Your task to perform on an android device: Empty the shopping cart on costco.com. Add razer huntsman to the cart on costco.com, then select checkout. Image 0: 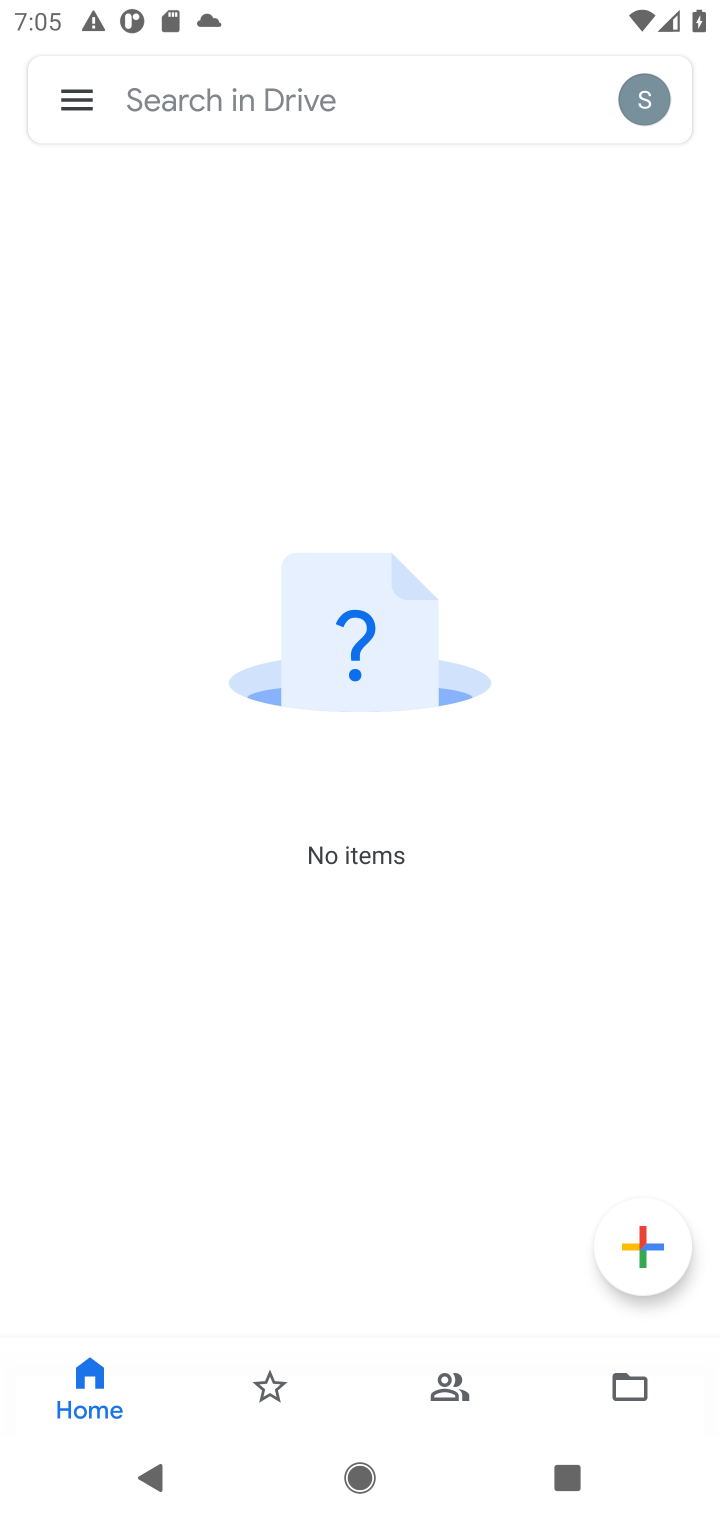
Step 0: press home button
Your task to perform on an android device: Empty the shopping cart on costco.com. Add razer huntsman to the cart on costco.com, then select checkout. Image 1: 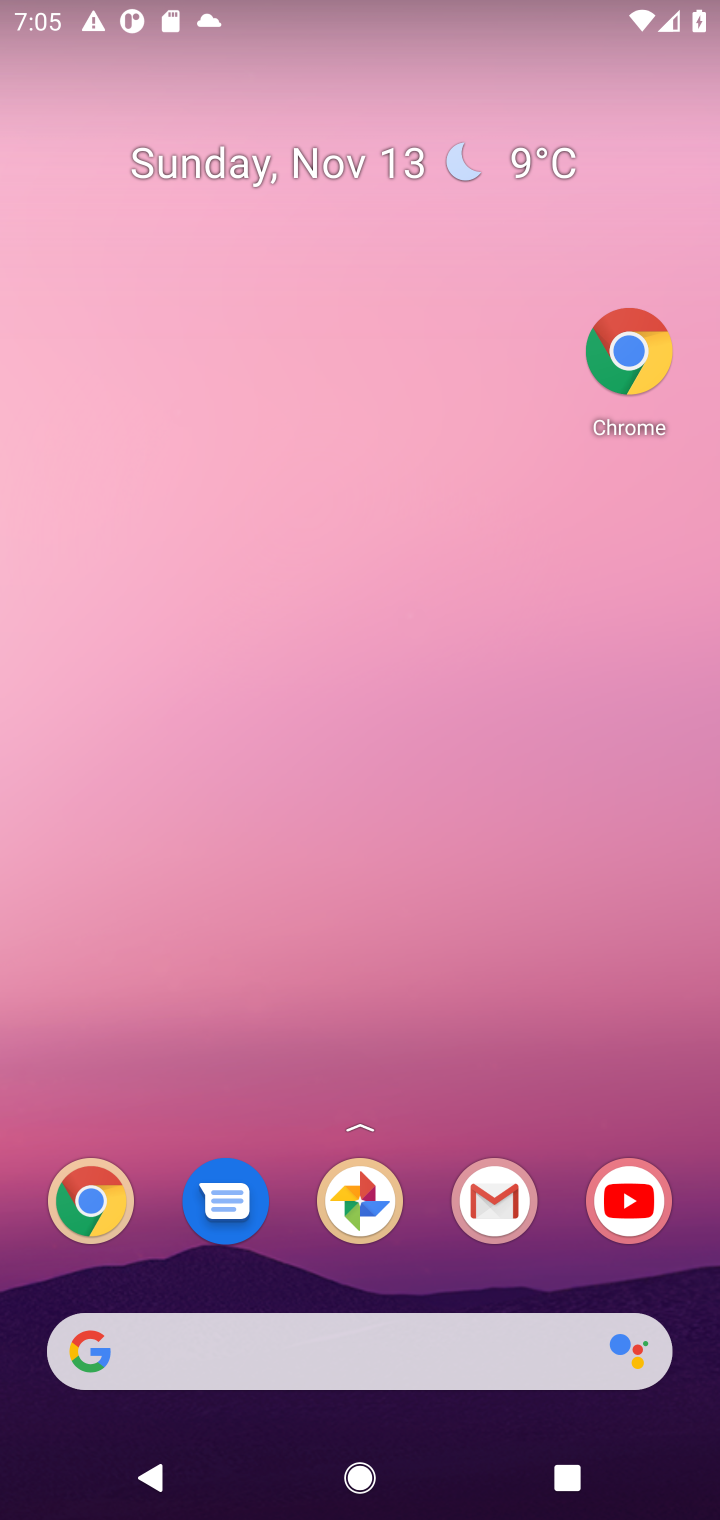
Step 1: drag from (425, 1276) to (351, 72)
Your task to perform on an android device: Empty the shopping cart on costco.com. Add razer huntsman to the cart on costco.com, then select checkout. Image 2: 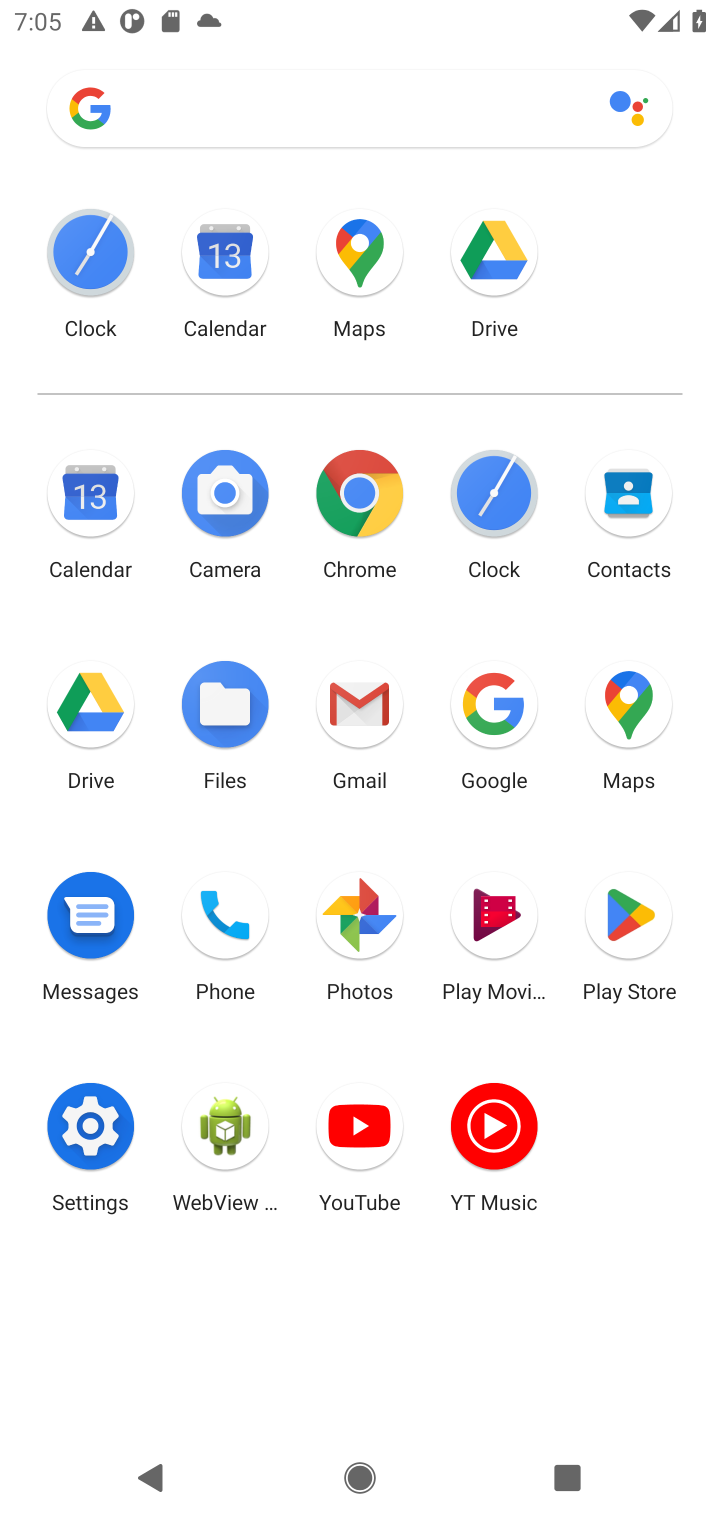
Step 2: click (372, 493)
Your task to perform on an android device: Empty the shopping cart on costco.com. Add razer huntsman to the cart on costco.com, then select checkout. Image 3: 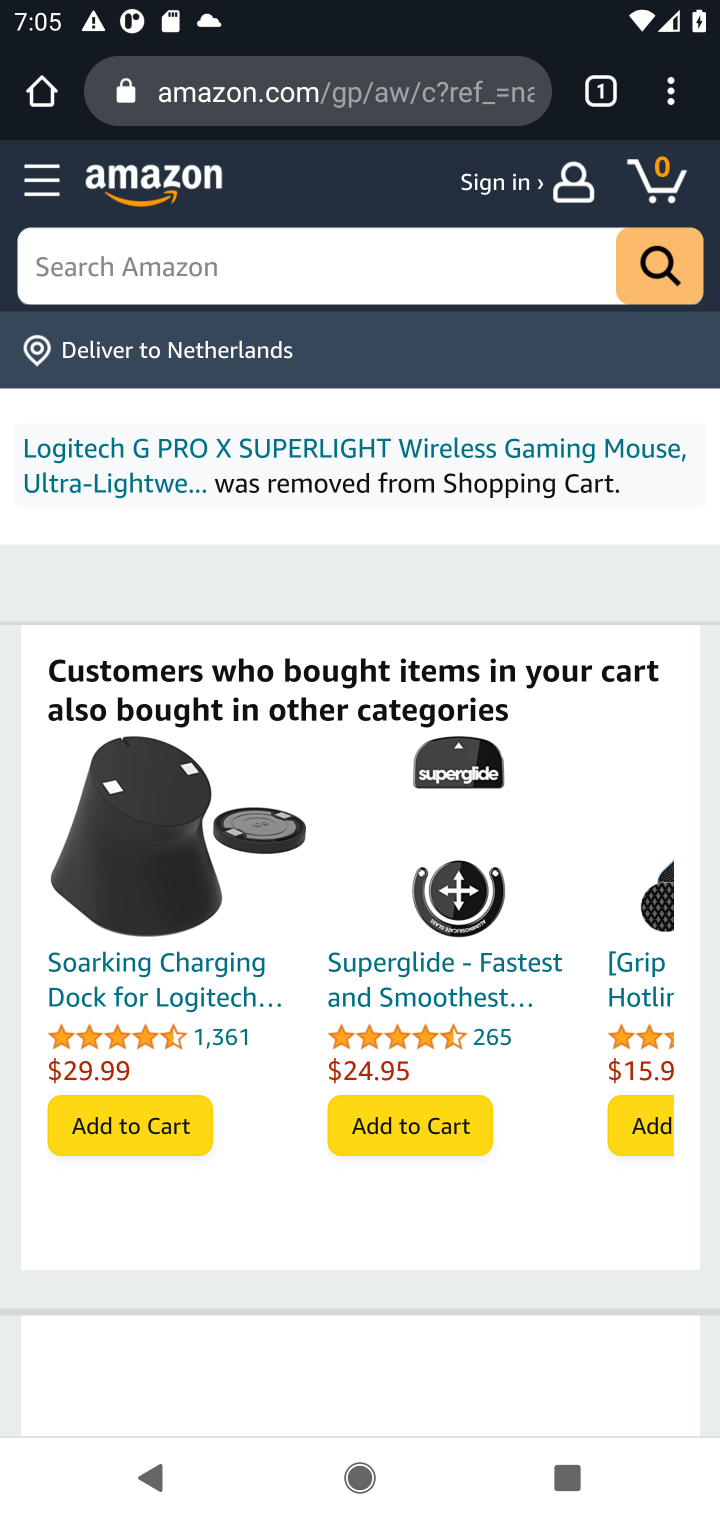
Step 3: click (270, 89)
Your task to perform on an android device: Empty the shopping cart on costco.com. Add razer huntsman to the cart on costco.com, then select checkout. Image 4: 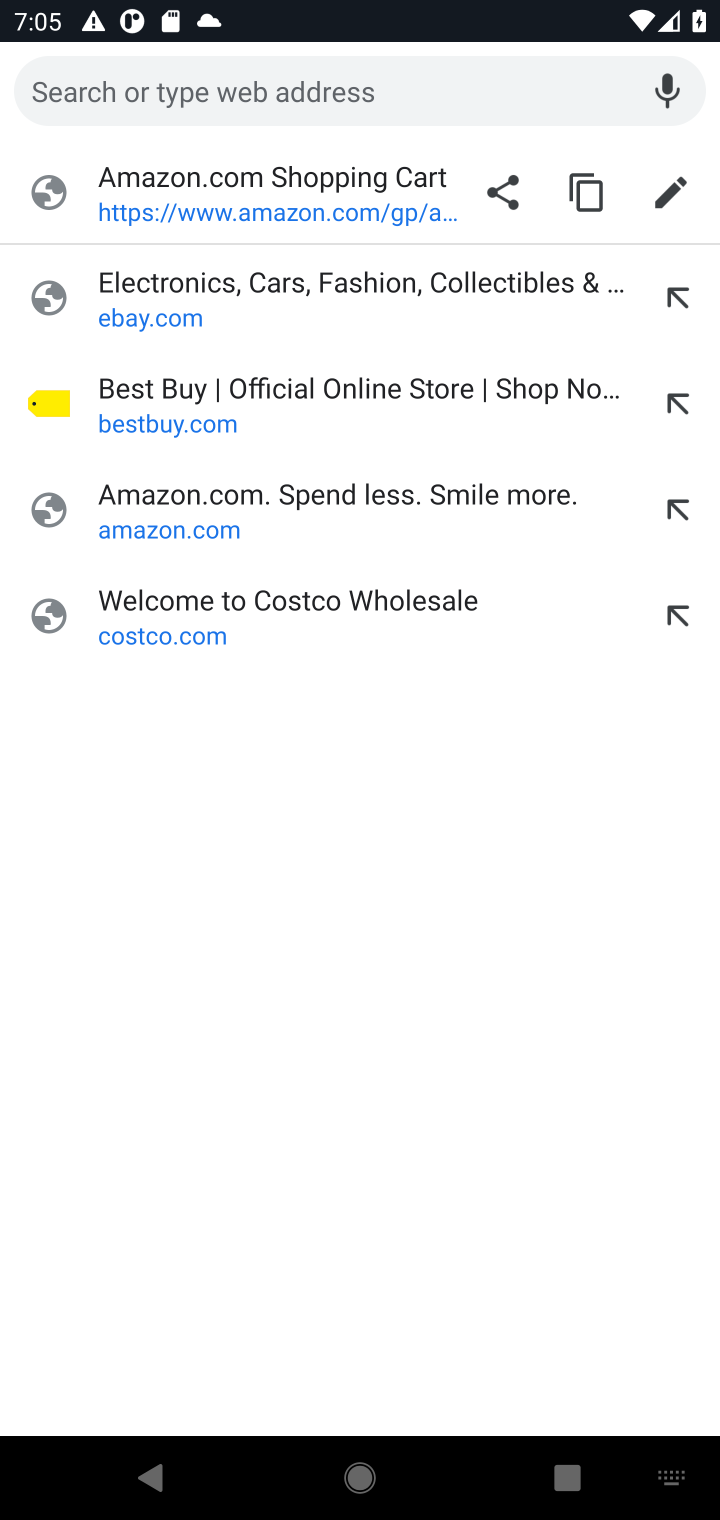
Step 4: type "costco.com"
Your task to perform on an android device: Empty the shopping cart on costco.com. Add razer huntsman to the cart on costco.com, then select checkout. Image 5: 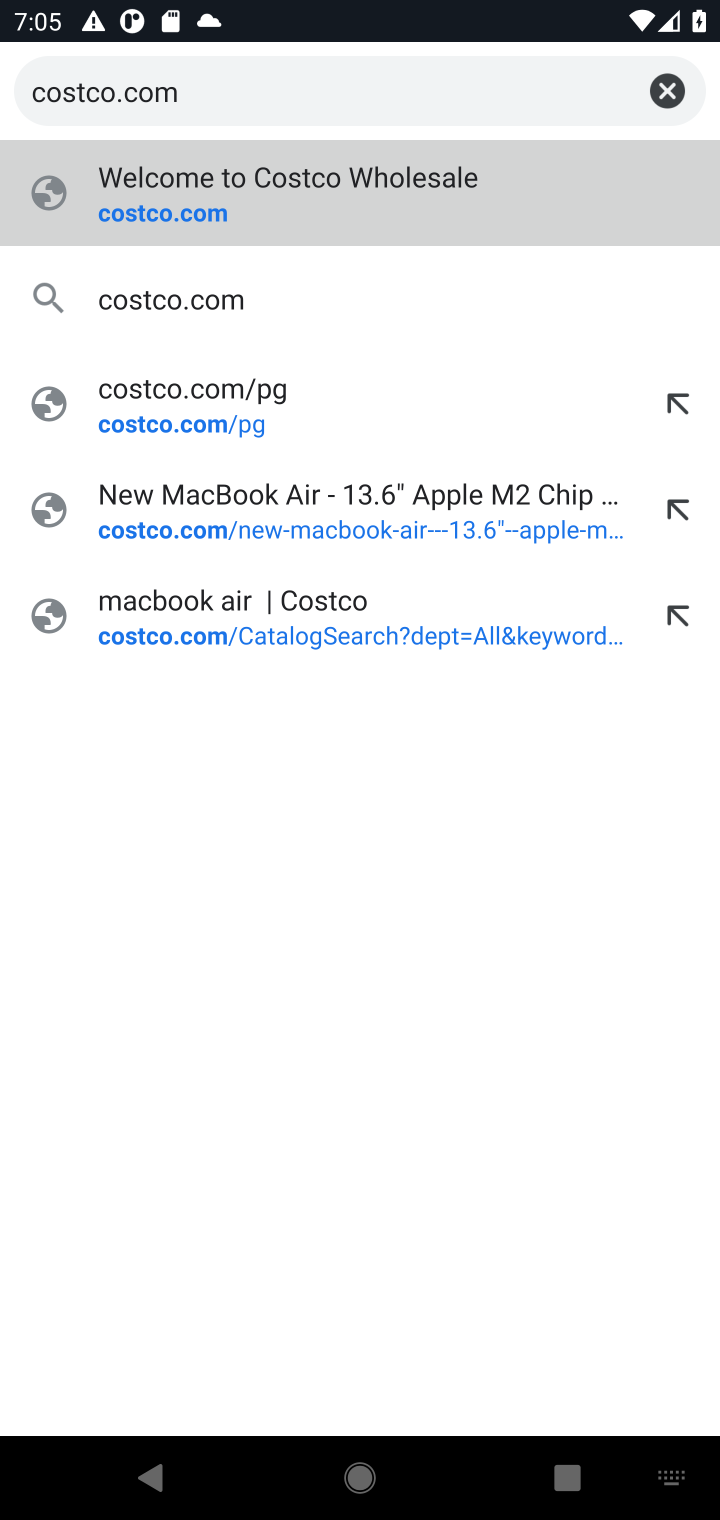
Step 5: press enter
Your task to perform on an android device: Empty the shopping cart on costco.com. Add razer huntsman to the cart on costco.com, then select checkout. Image 6: 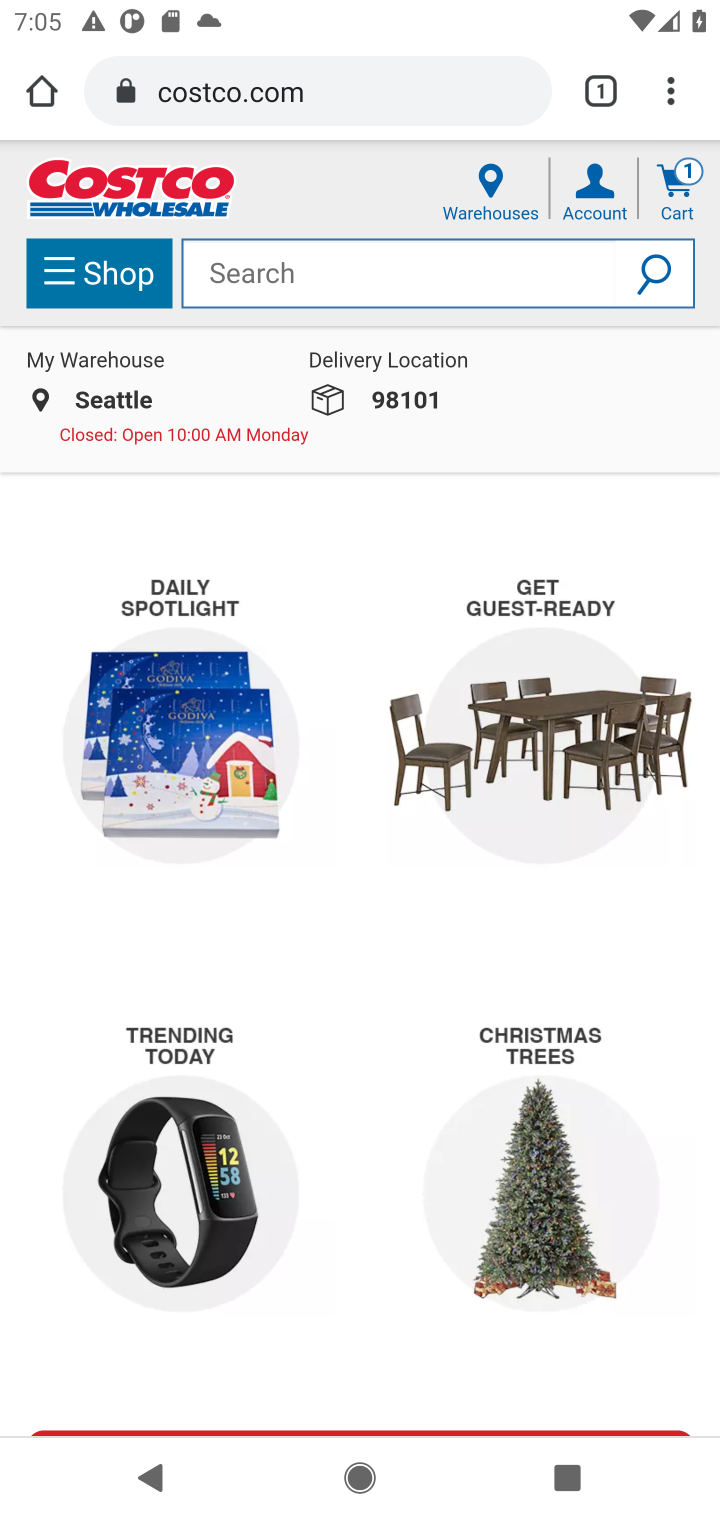
Step 6: click (684, 181)
Your task to perform on an android device: Empty the shopping cart on costco.com. Add razer huntsman to the cart on costco.com, then select checkout. Image 7: 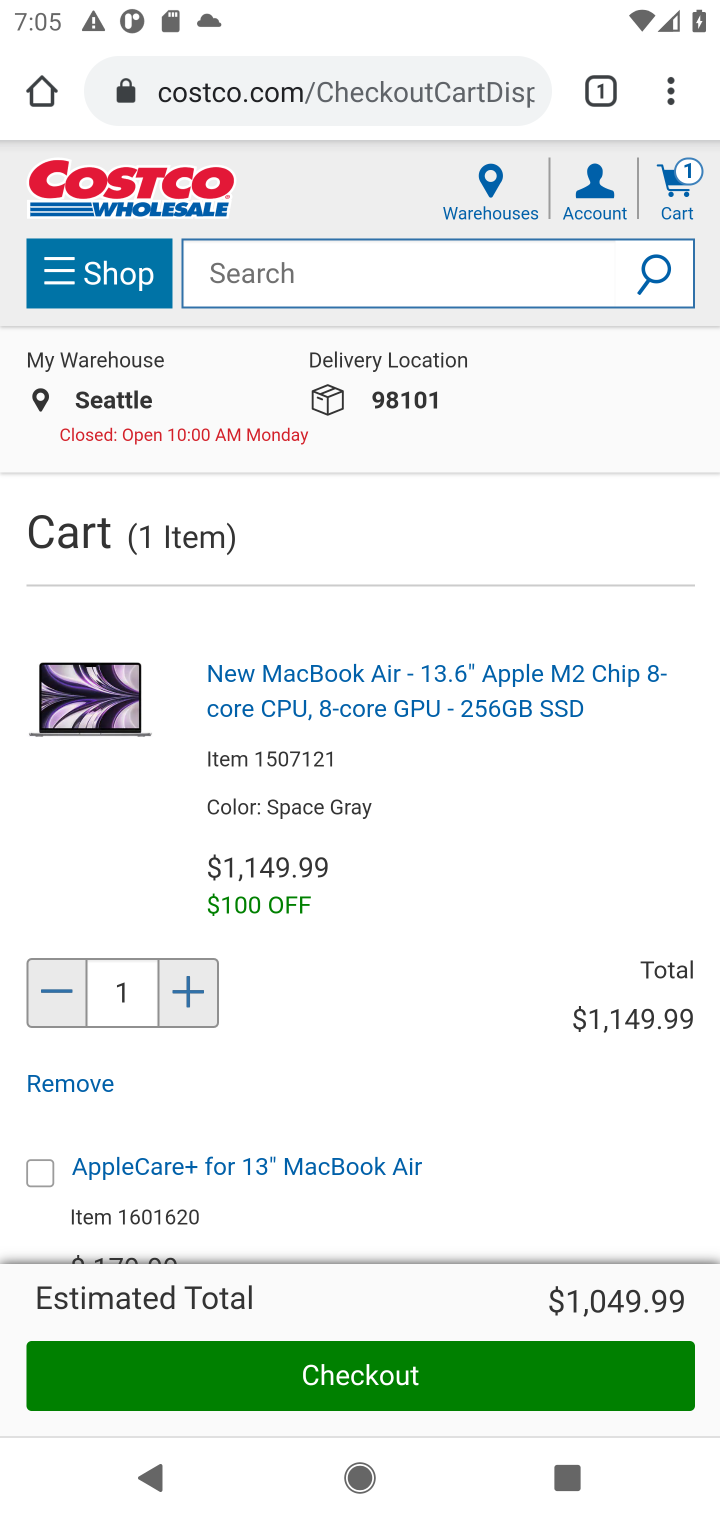
Step 7: drag from (365, 1120) to (399, 758)
Your task to perform on an android device: Empty the shopping cart on costco.com. Add razer huntsman to the cart on costco.com, then select checkout. Image 8: 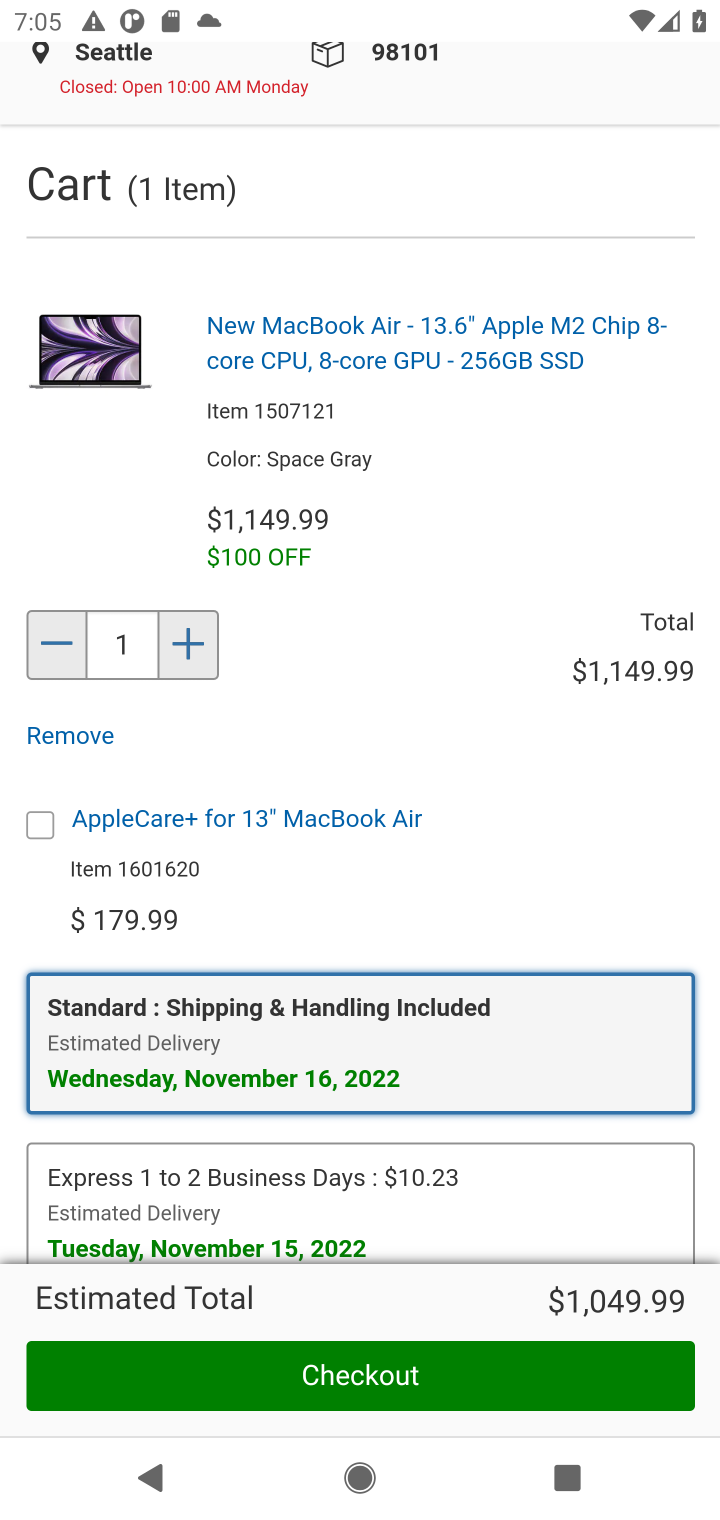
Step 8: click (50, 630)
Your task to perform on an android device: Empty the shopping cart on costco.com. Add razer huntsman to the cart on costco.com, then select checkout. Image 9: 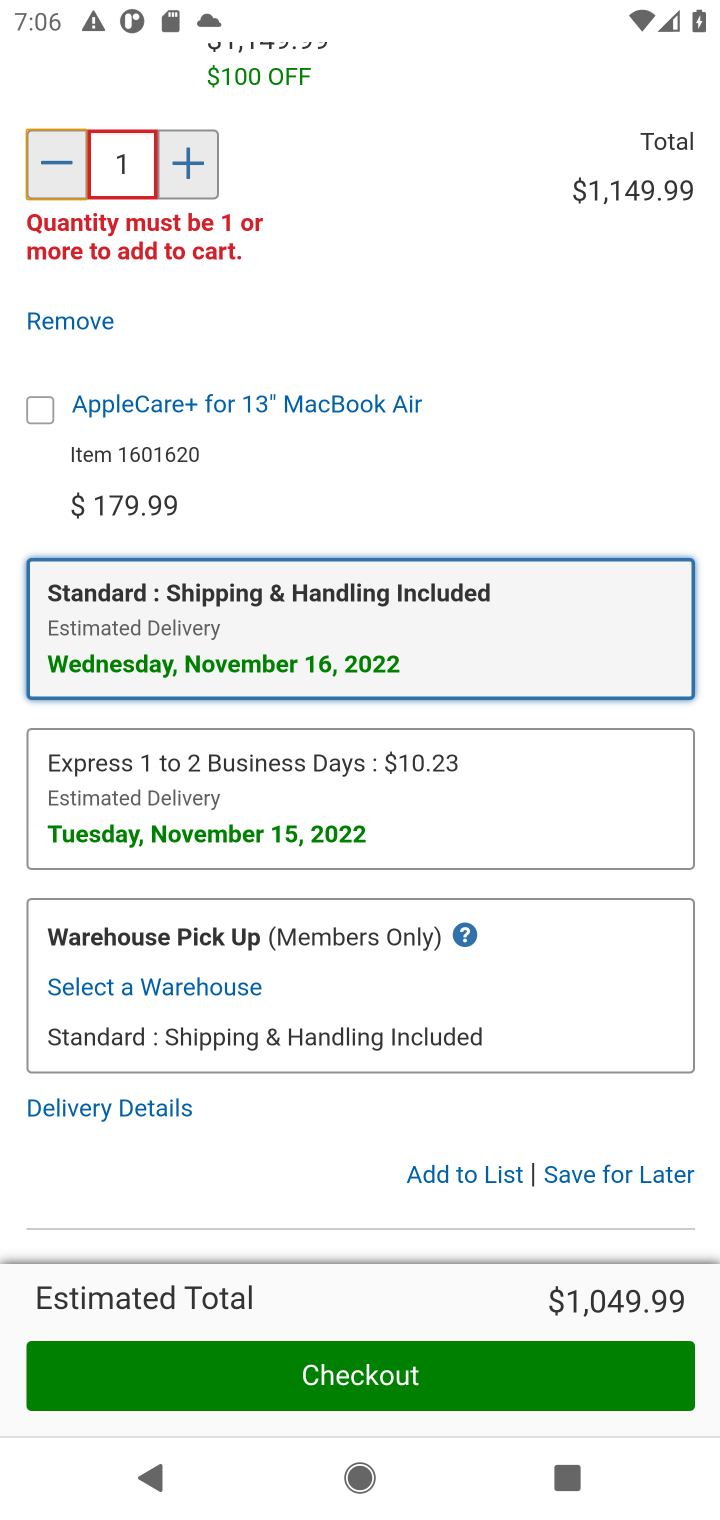
Step 9: click (91, 324)
Your task to perform on an android device: Empty the shopping cart on costco.com. Add razer huntsman to the cart on costco.com, then select checkout. Image 10: 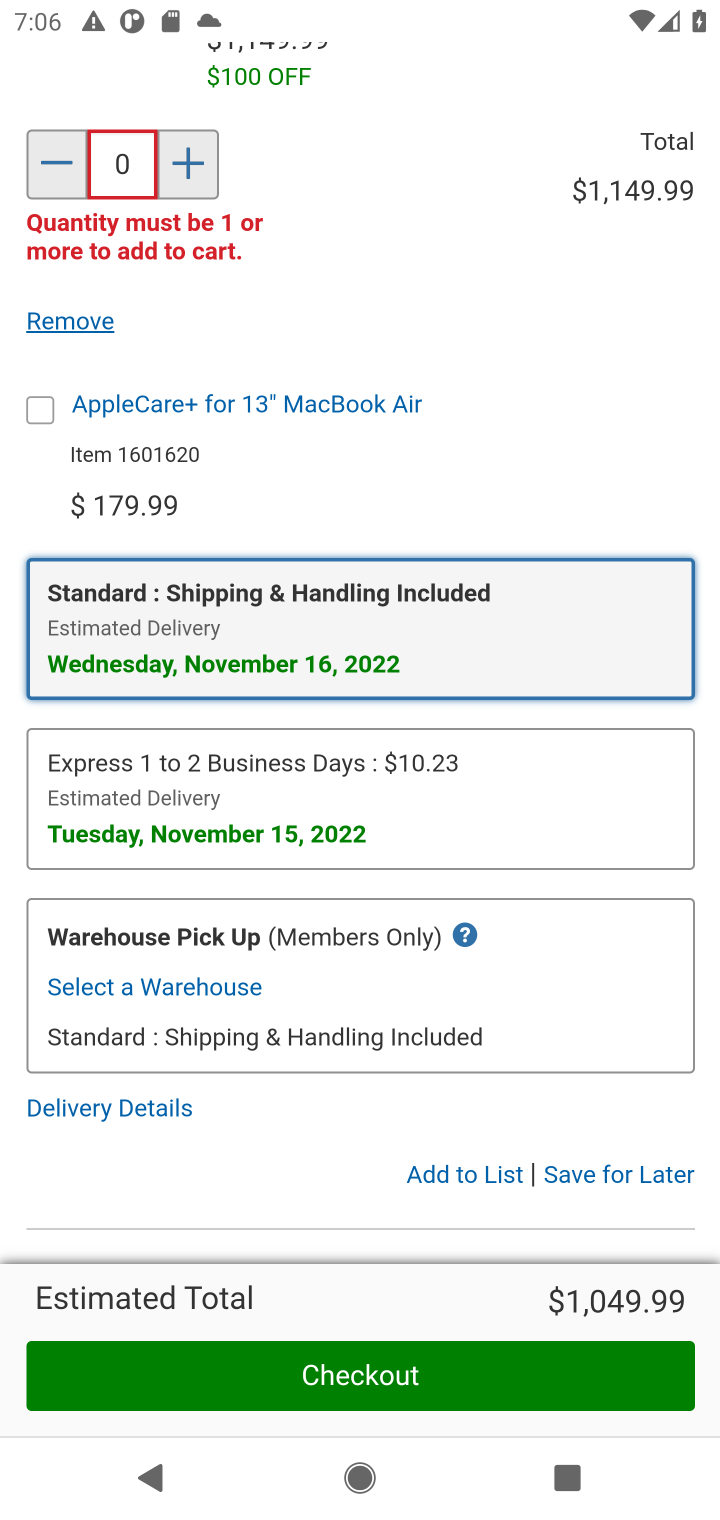
Step 10: drag from (437, 359) to (450, 1097)
Your task to perform on an android device: Empty the shopping cart on costco.com. Add razer huntsman to the cart on costco.com, then select checkout. Image 11: 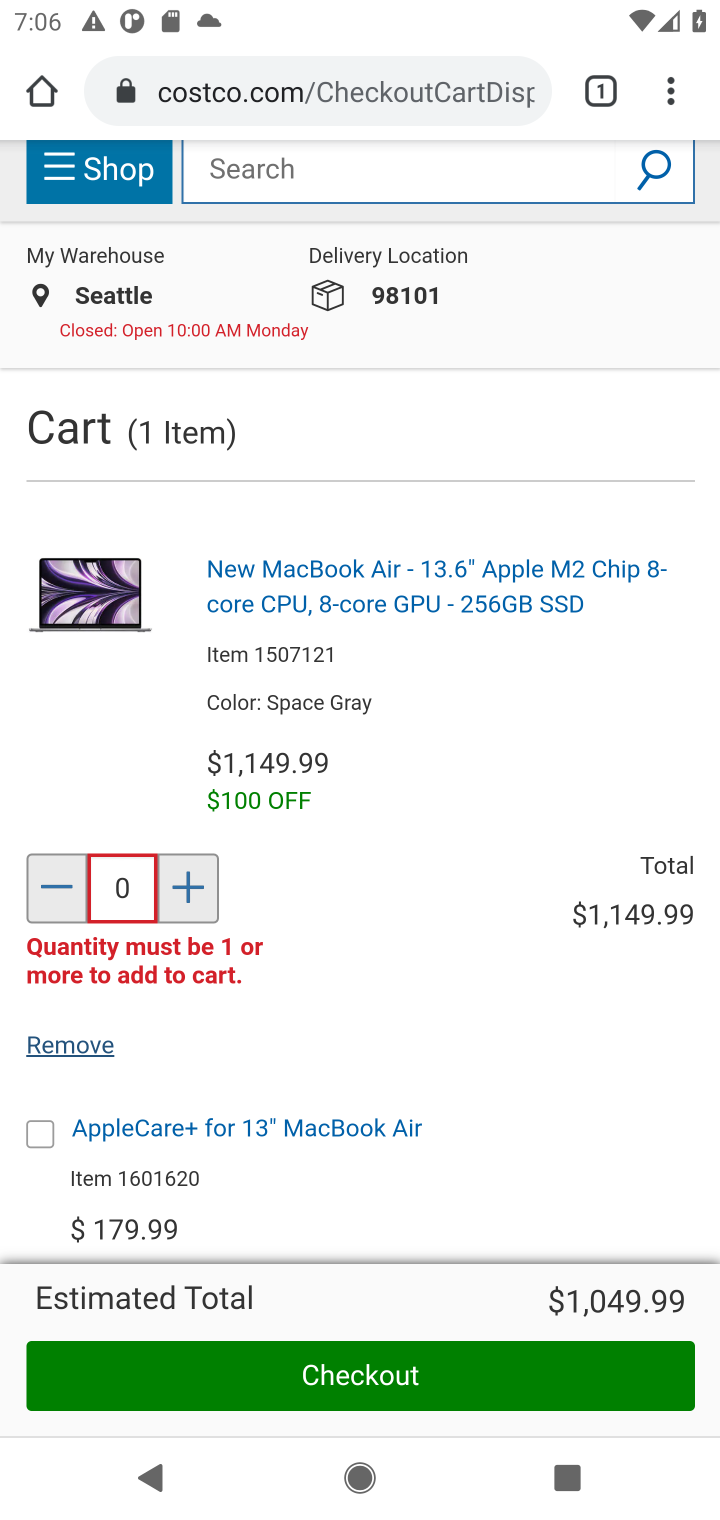
Step 11: click (80, 1047)
Your task to perform on an android device: Empty the shopping cart on costco.com. Add razer huntsman to the cart on costco.com, then select checkout. Image 12: 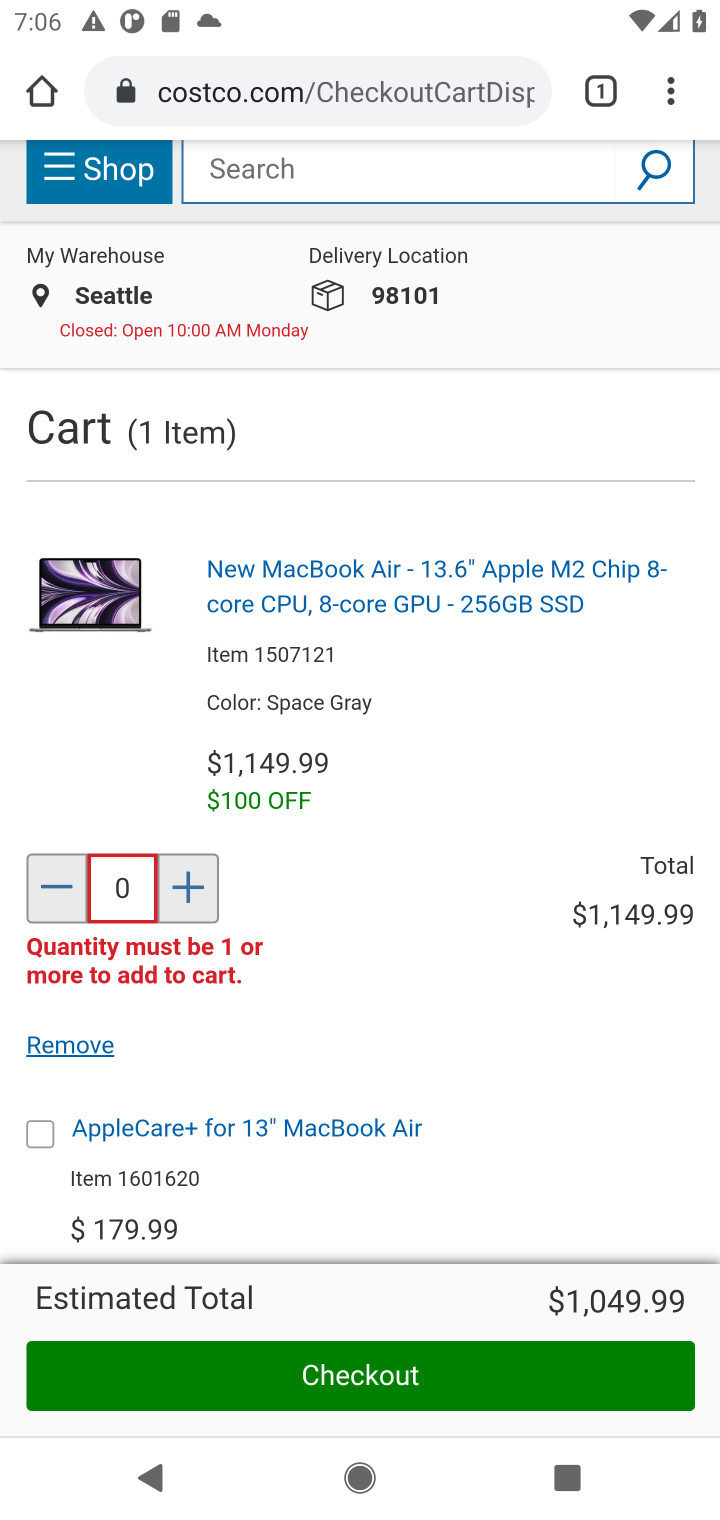
Step 12: task complete